Your task to perform on an android device: read, delete, or share a saved page in the chrome app Image 0: 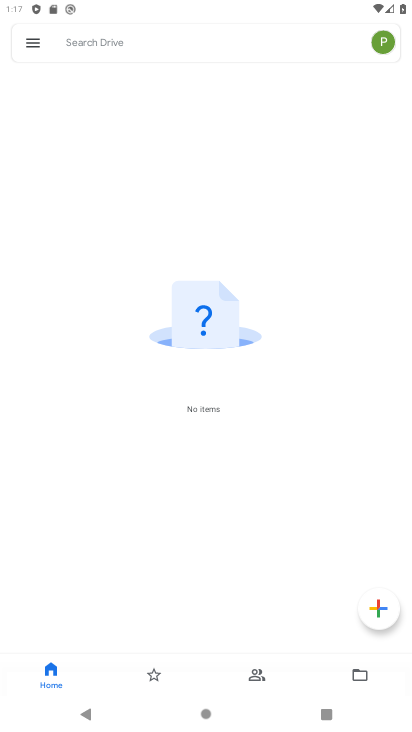
Step 0: press home button
Your task to perform on an android device: read, delete, or share a saved page in the chrome app Image 1: 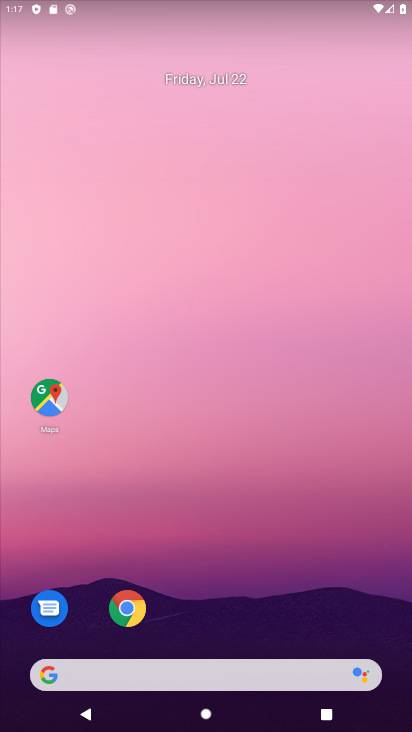
Step 1: click (133, 605)
Your task to perform on an android device: read, delete, or share a saved page in the chrome app Image 2: 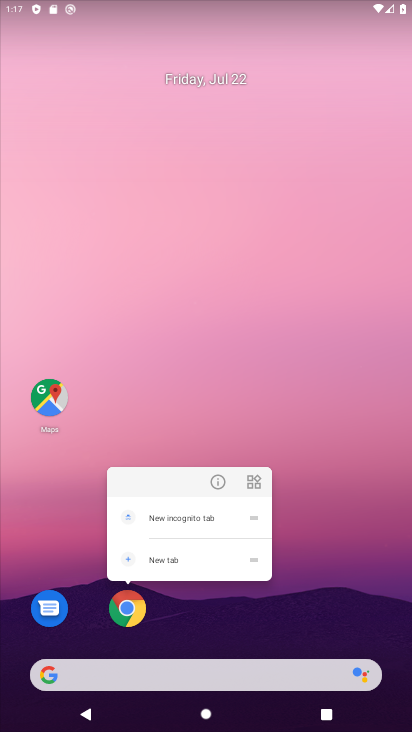
Step 2: click (124, 609)
Your task to perform on an android device: read, delete, or share a saved page in the chrome app Image 3: 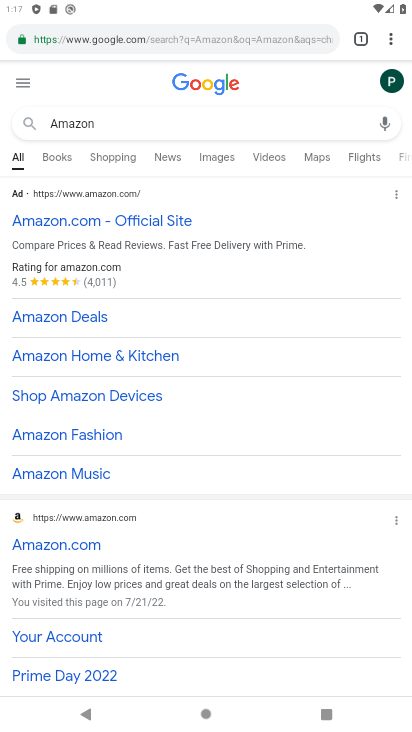
Step 3: click (387, 39)
Your task to perform on an android device: read, delete, or share a saved page in the chrome app Image 4: 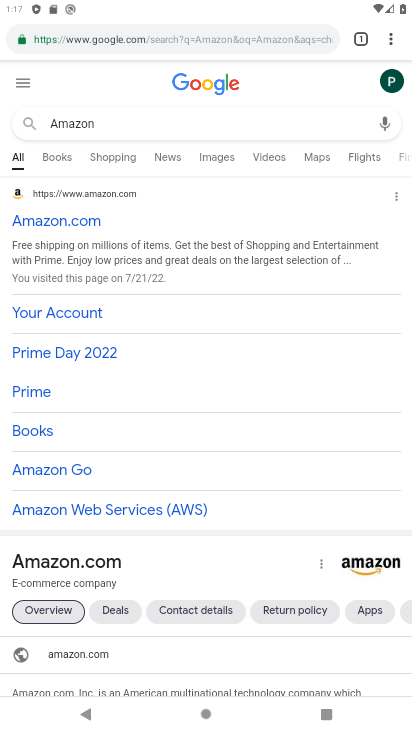
Step 4: click (391, 40)
Your task to perform on an android device: read, delete, or share a saved page in the chrome app Image 5: 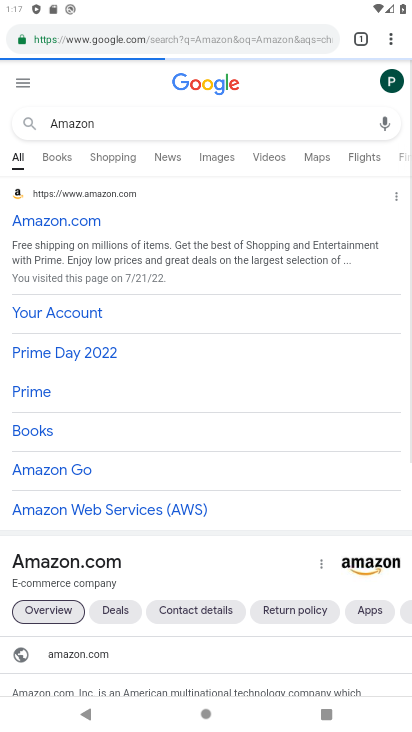
Step 5: click (391, 40)
Your task to perform on an android device: read, delete, or share a saved page in the chrome app Image 6: 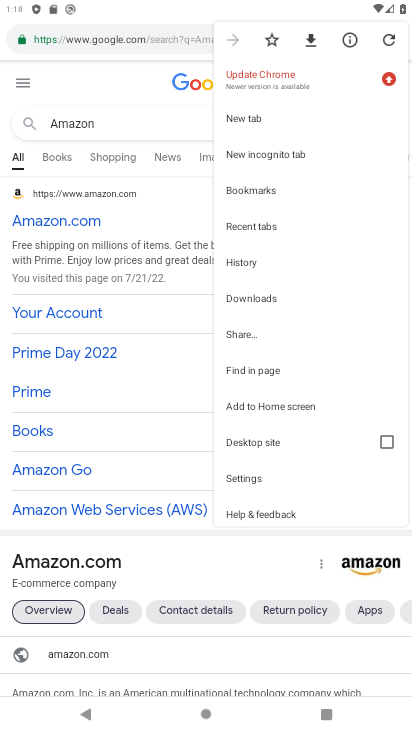
Step 6: click (256, 295)
Your task to perform on an android device: read, delete, or share a saved page in the chrome app Image 7: 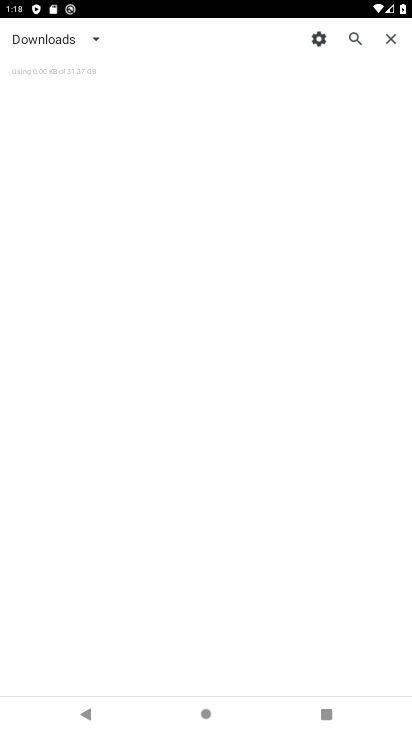
Step 7: task complete